Your task to perform on an android device: What's on my calendar tomorrow? Image 0: 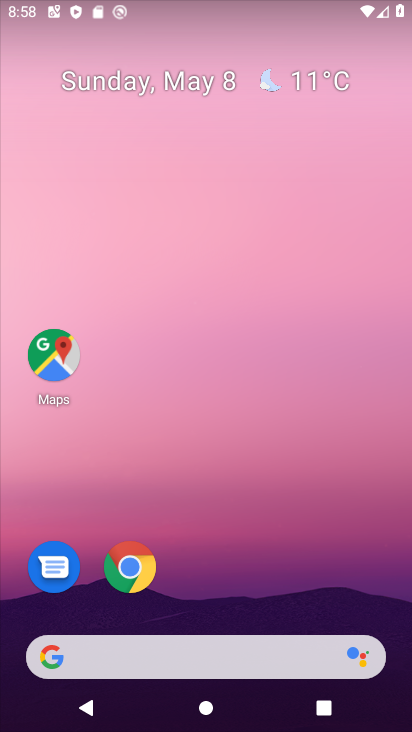
Step 0: drag from (194, 631) to (295, 36)
Your task to perform on an android device: What's on my calendar tomorrow? Image 1: 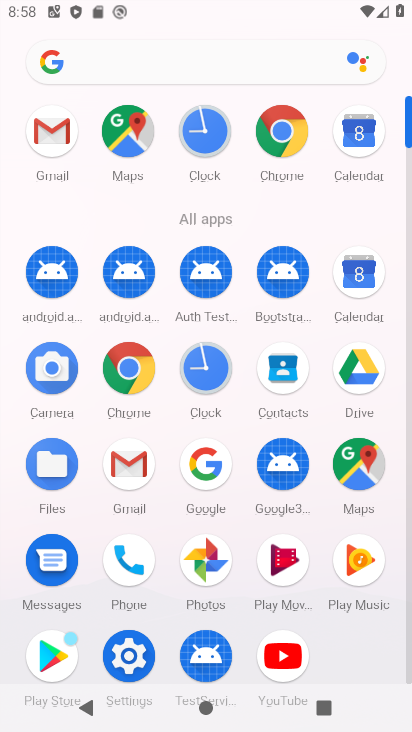
Step 1: click (357, 286)
Your task to perform on an android device: What's on my calendar tomorrow? Image 2: 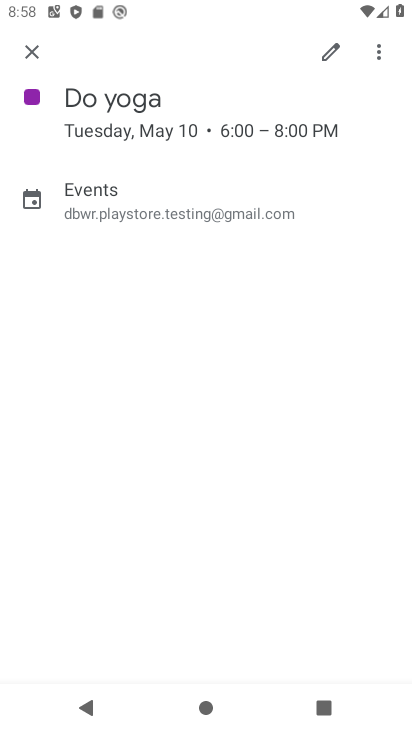
Step 2: click (22, 47)
Your task to perform on an android device: What's on my calendar tomorrow? Image 3: 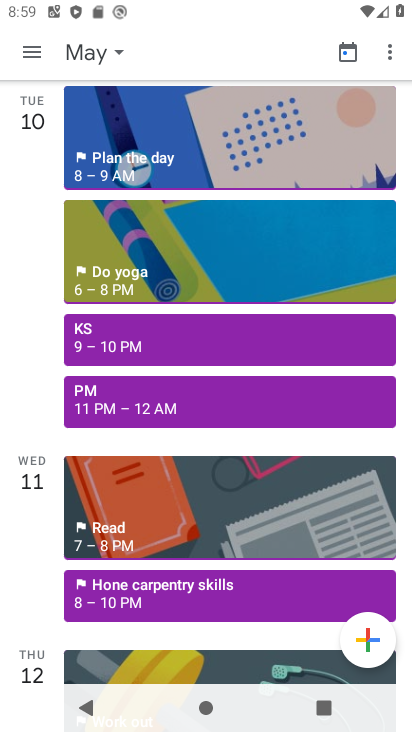
Step 3: drag from (220, 270) to (232, 573)
Your task to perform on an android device: What's on my calendar tomorrow? Image 4: 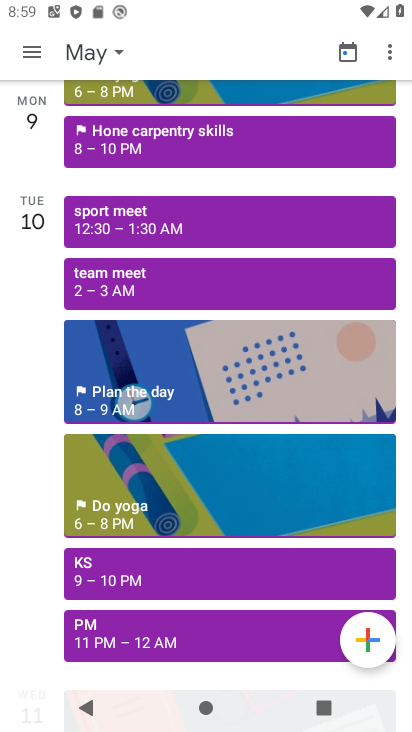
Step 4: drag from (198, 548) to (243, 242)
Your task to perform on an android device: What's on my calendar tomorrow? Image 5: 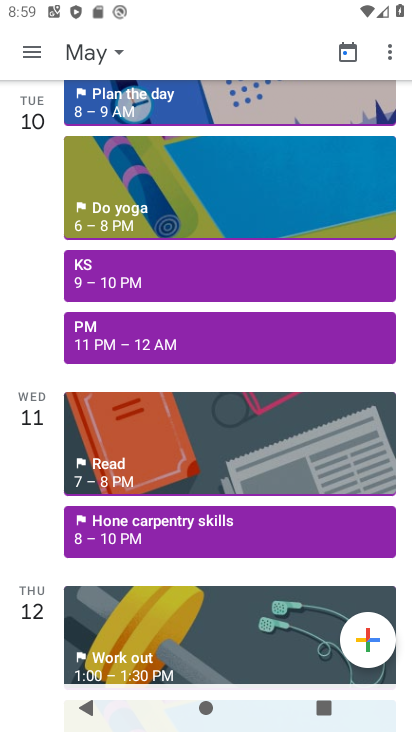
Step 5: click (164, 216)
Your task to perform on an android device: What's on my calendar tomorrow? Image 6: 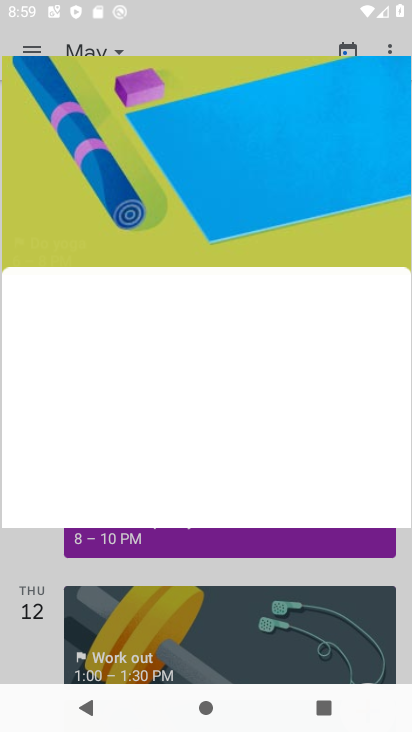
Step 6: task complete